Your task to perform on an android device: Go to ESPN.com Image 0: 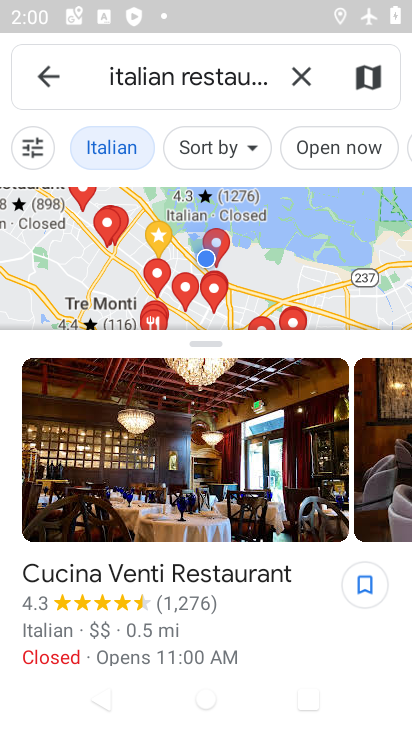
Step 0: press home button
Your task to perform on an android device: Go to ESPN.com Image 1: 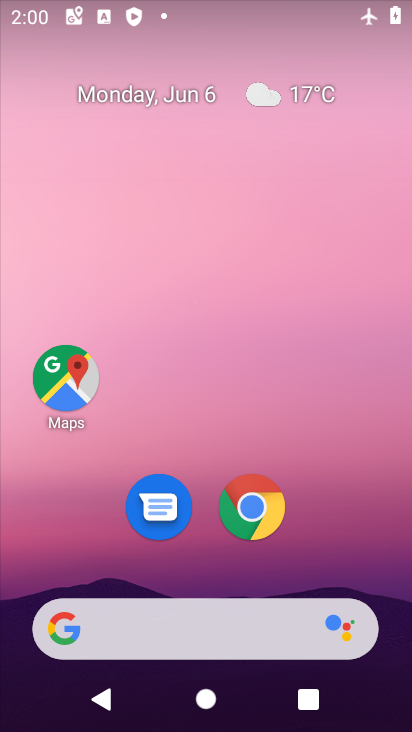
Step 1: click (253, 623)
Your task to perform on an android device: Go to ESPN.com Image 2: 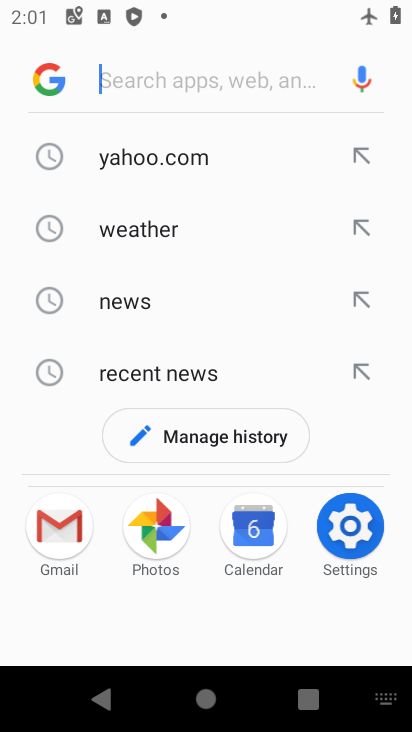
Step 2: type "espn.com"
Your task to perform on an android device: Go to ESPN.com Image 3: 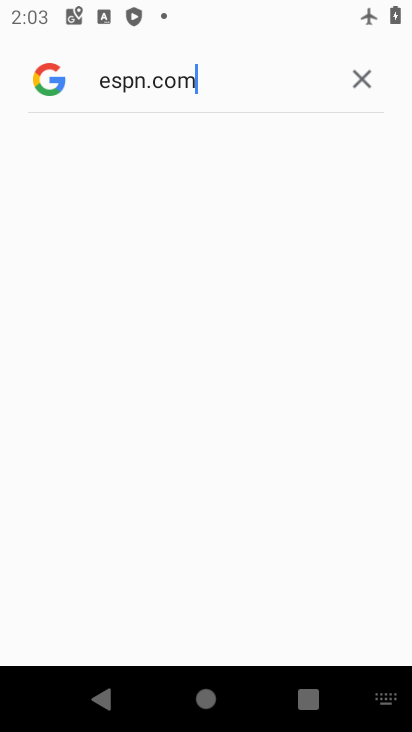
Step 3: task complete